Your task to perform on an android device: Search for "logitech g502" on bestbuy, select the first entry, add it to the cart, then select checkout. Image 0: 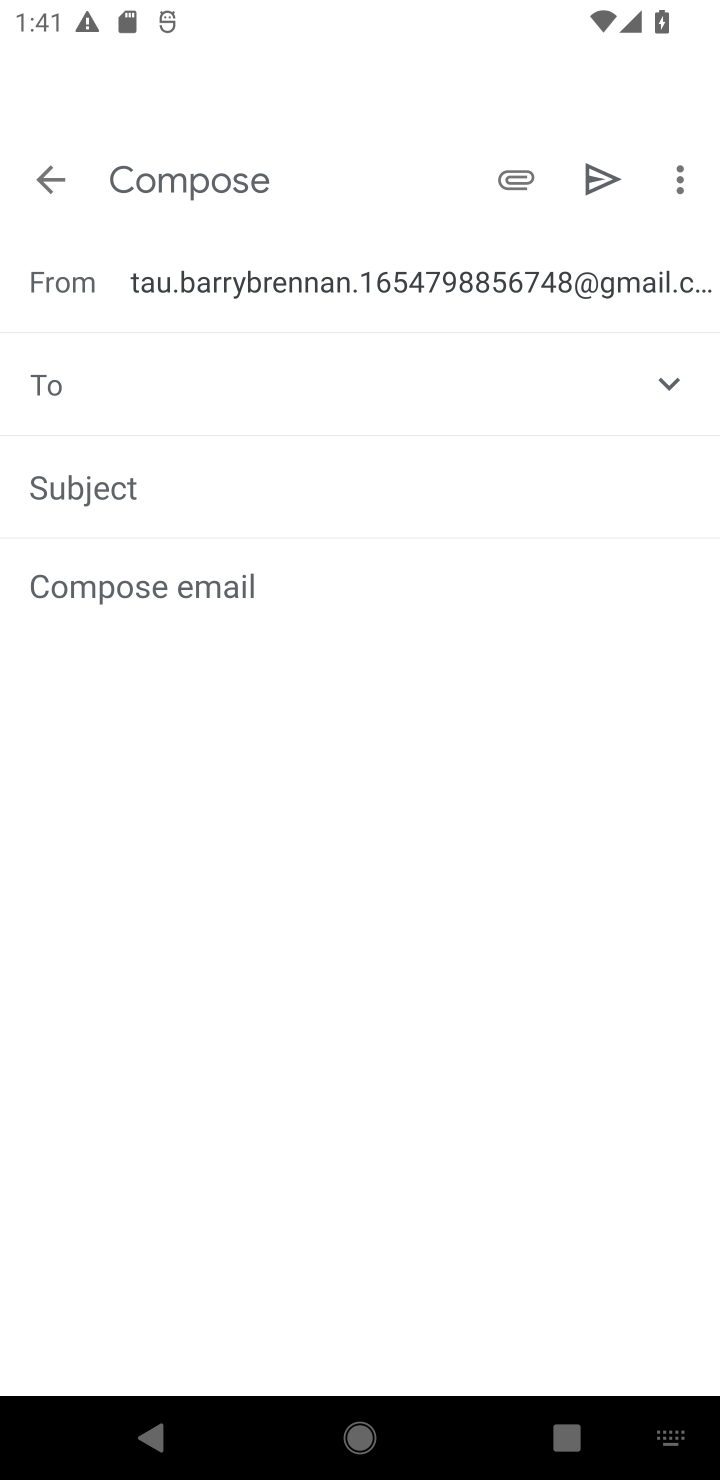
Step 0: press home button
Your task to perform on an android device: Search for "logitech g502" on bestbuy, select the first entry, add it to the cart, then select checkout. Image 1: 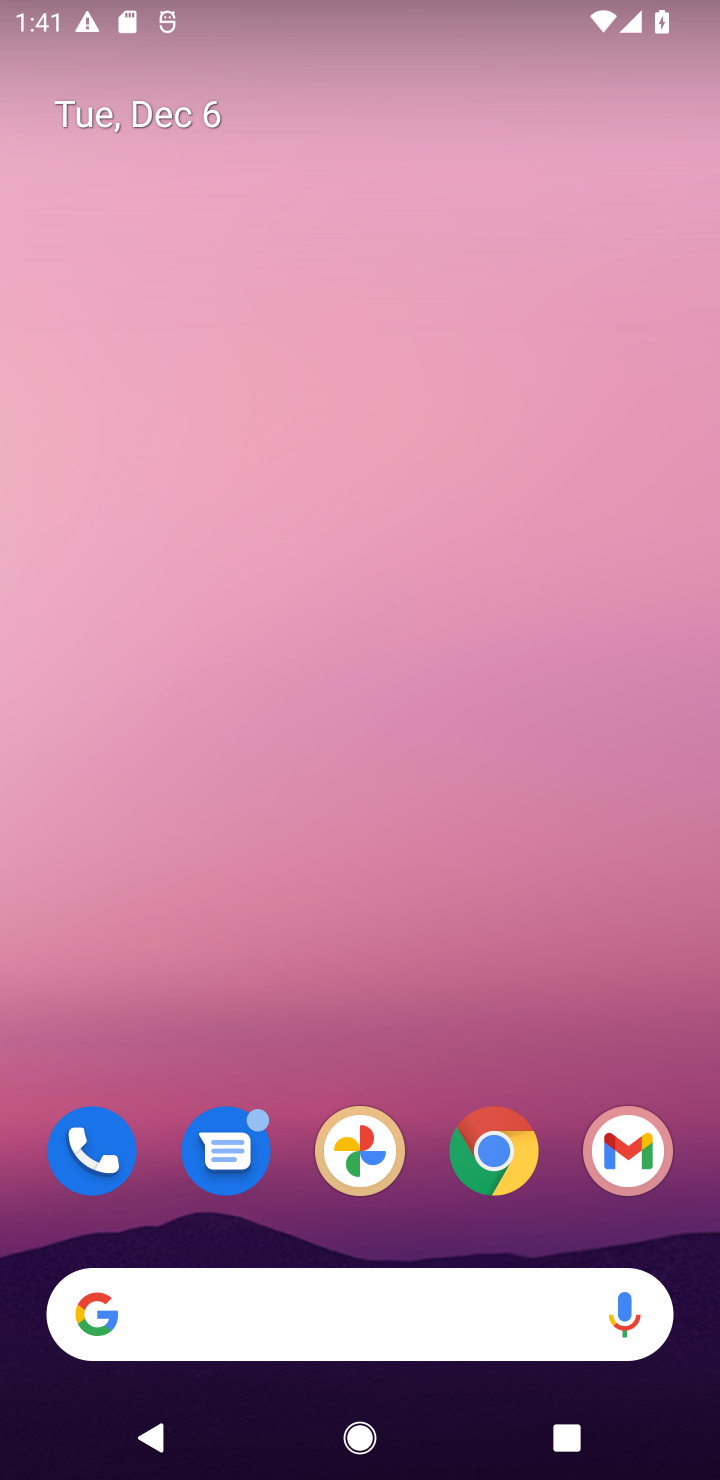
Step 1: click (499, 1146)
Your task to perform on an android device: Search for "logitech g502" on bestbuy, select the first entry, add it to the cart, then select checkout. Image 2: 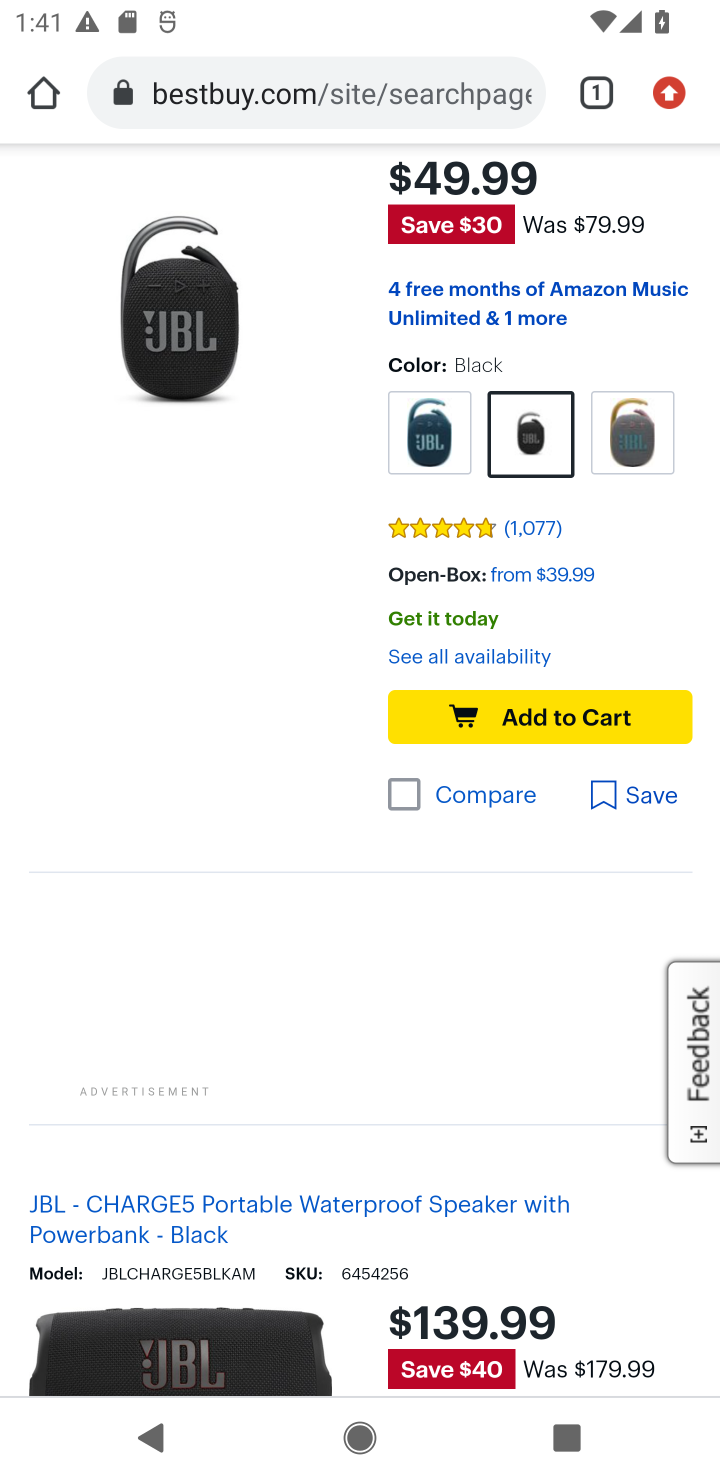
Step 2: drag from (195, 925) to (113, 1124)
Your task to perform on an android device: Search for "logitech g502" on bestbuy, select the first entry, add it to the cart, then select checkout. Image 3: 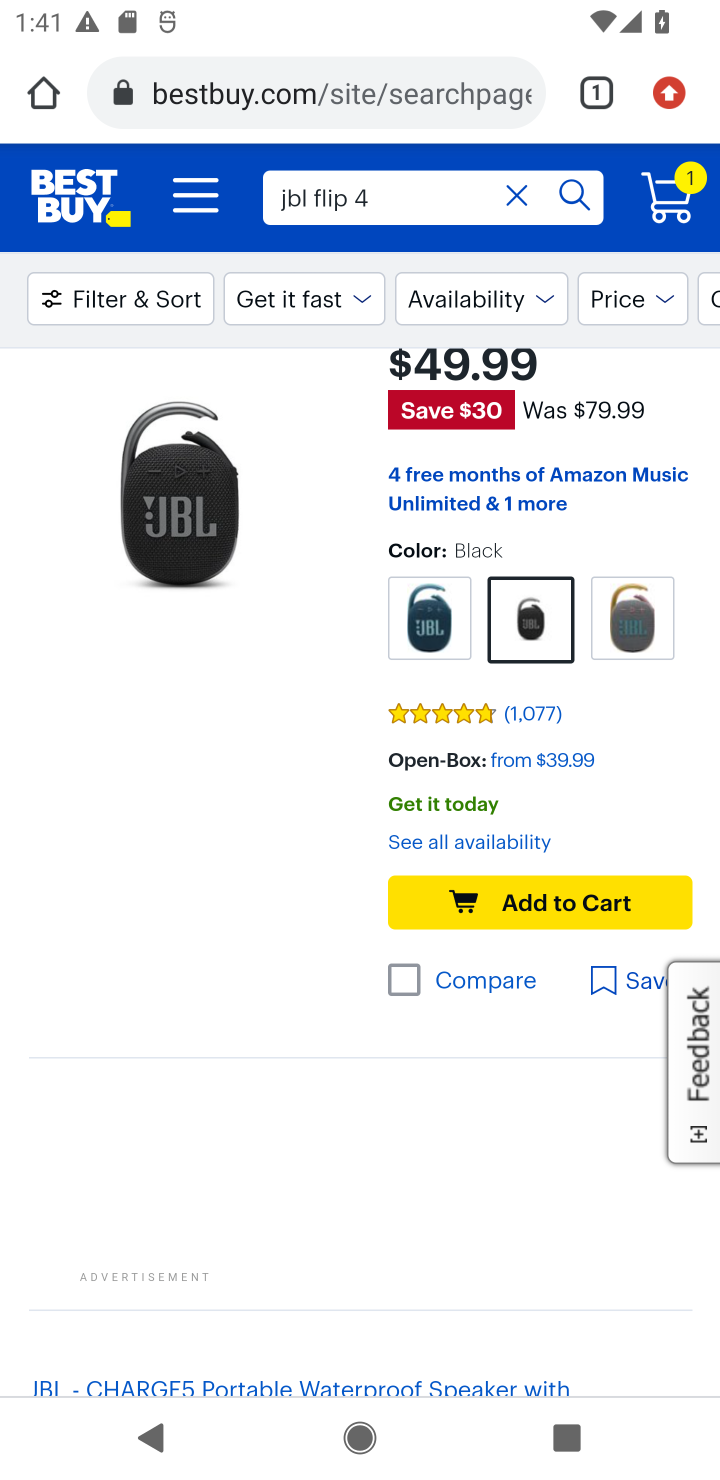
Step 3: click (511, 184)
Your task to perform on an android device: Search for "logitech g502" on bestbuy, select the first entry, add it to the cart, then select checkout. Image 4: 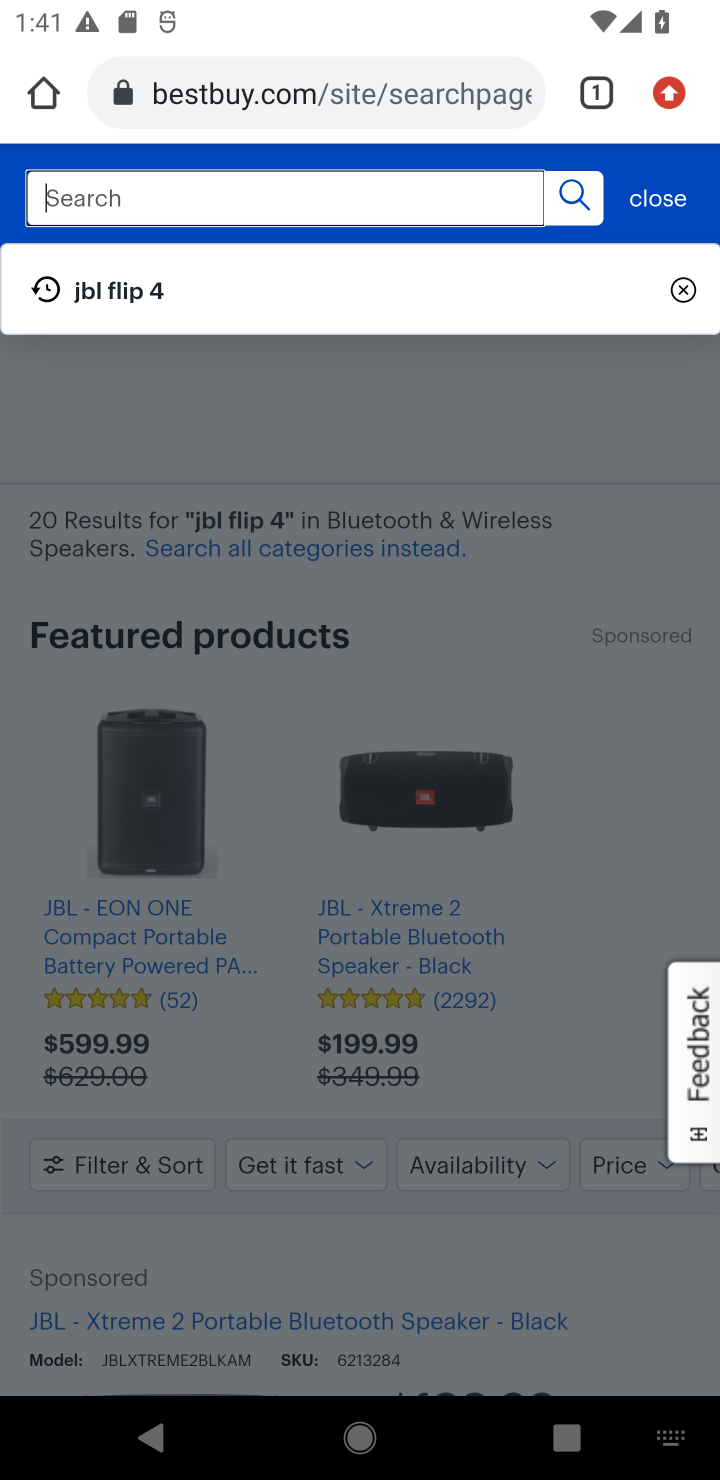
Step 4: type "logitech g502"
Your task to perform on an android device: Search for "logitech g502" on bestbuy, select the first entry, add it to the cart, then select checkout. Image 5: 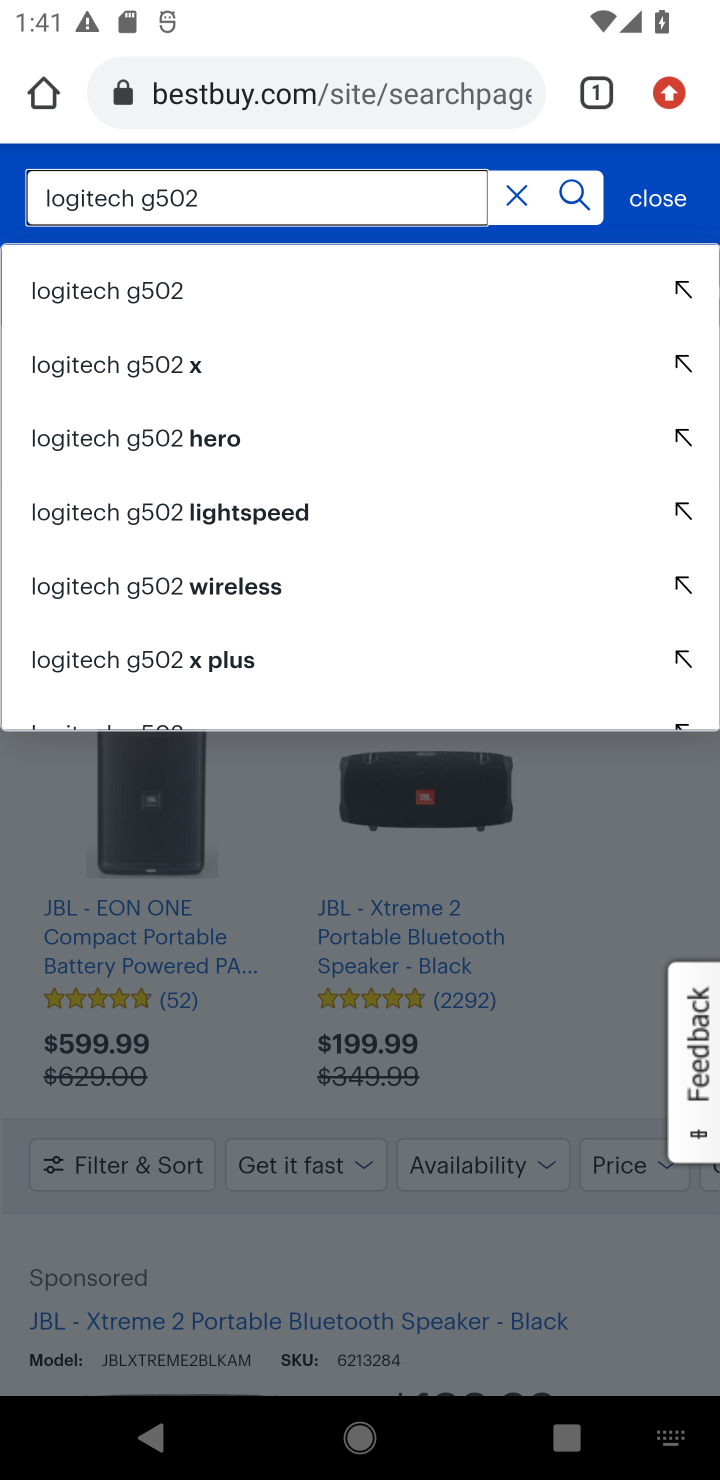
Step 5: click (133, 296)
Your task to perform on an android device: Search for "logitech g502" on bestbuy, select the first entry, add it to the cart, then select checkout. Image 6: 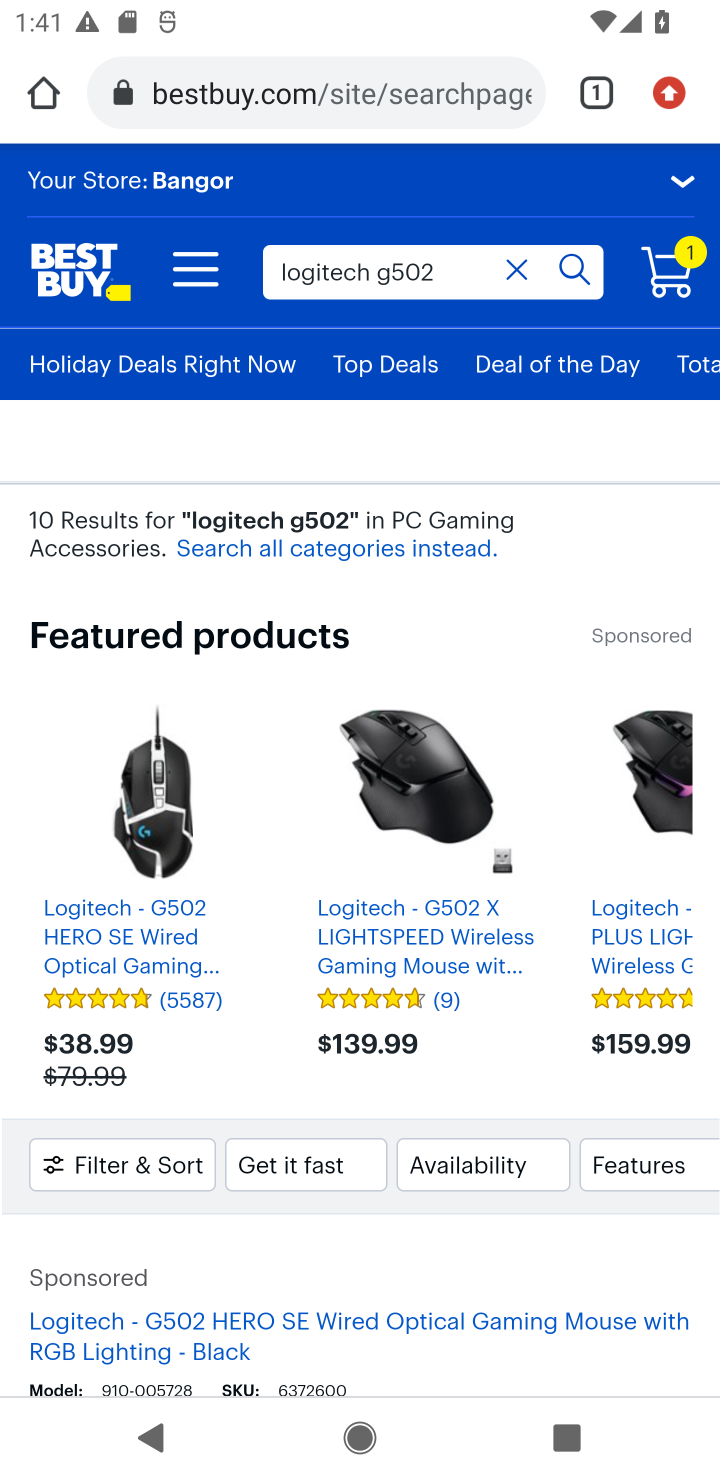
Step 6: drag from (280, 944) to (280, 419)
Your task to perform on an android device: Search for "logitech g502" on bestbuy, select the first entry, add it to the cart, then select checkout. Image 7: 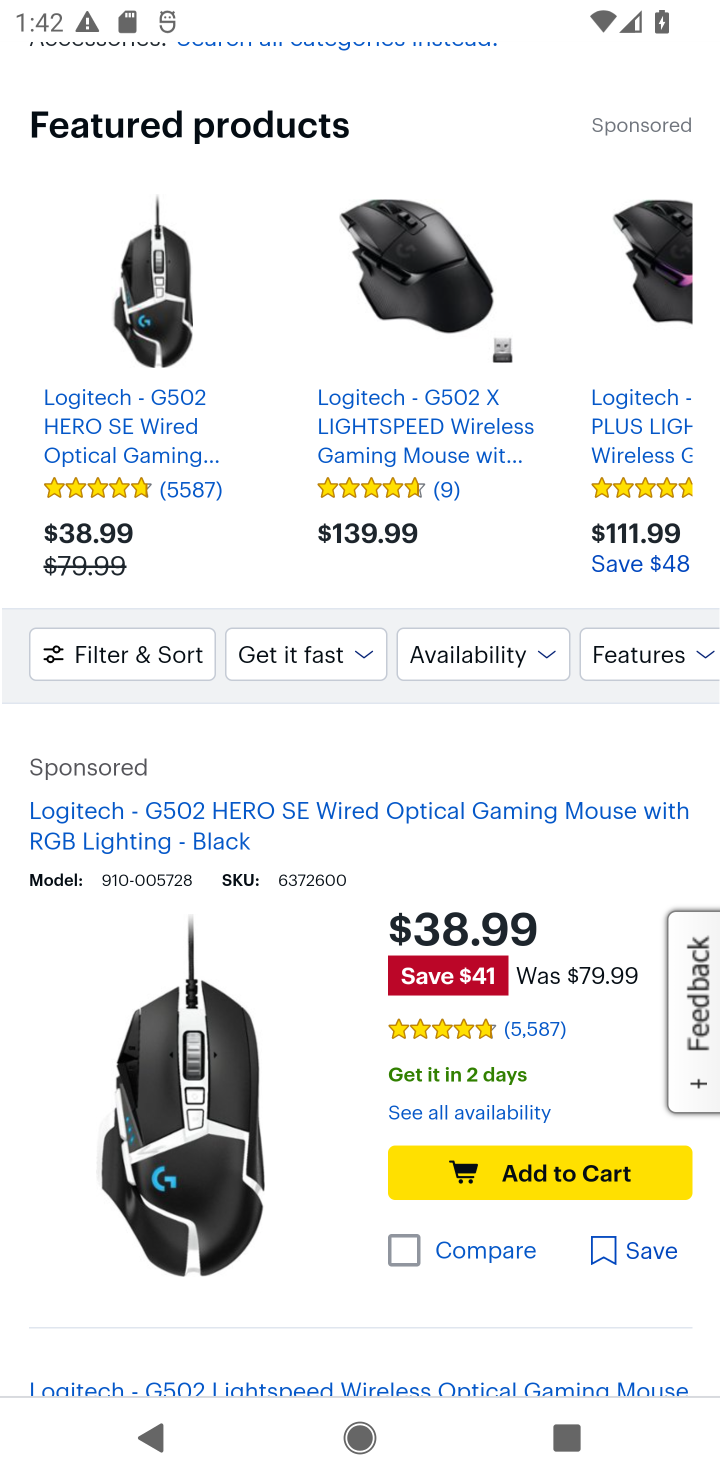
Step 7: click (478, 1179)
Your task to perform on an android device: Search for "logitech g502" on bestbuy, select the first entry, add it to the cart, then select checkout. Image 8: 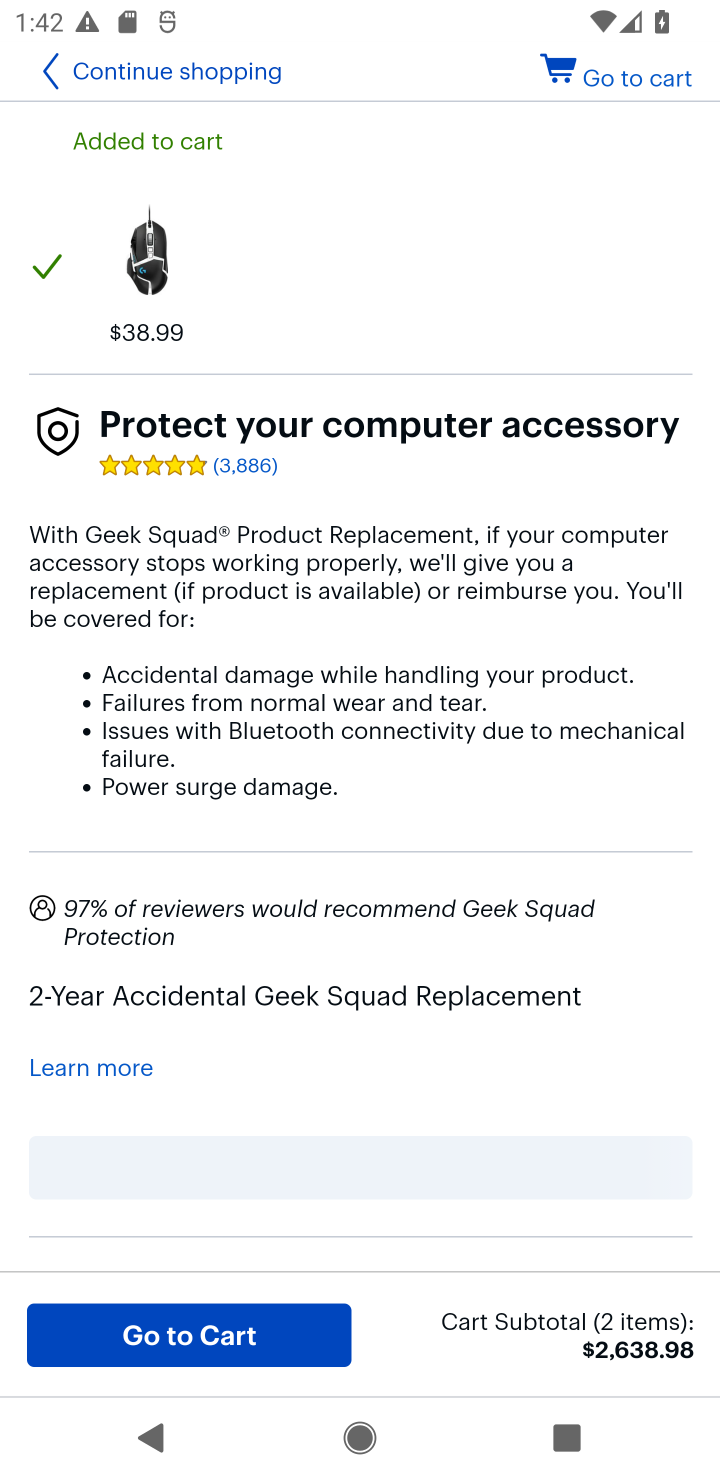
Step 8: click (629, 86)
Your task to perform on an android device: Search for "logitech g502" on bestbuy, select the first entry, add it to the cart, then select checkout. Image 9: 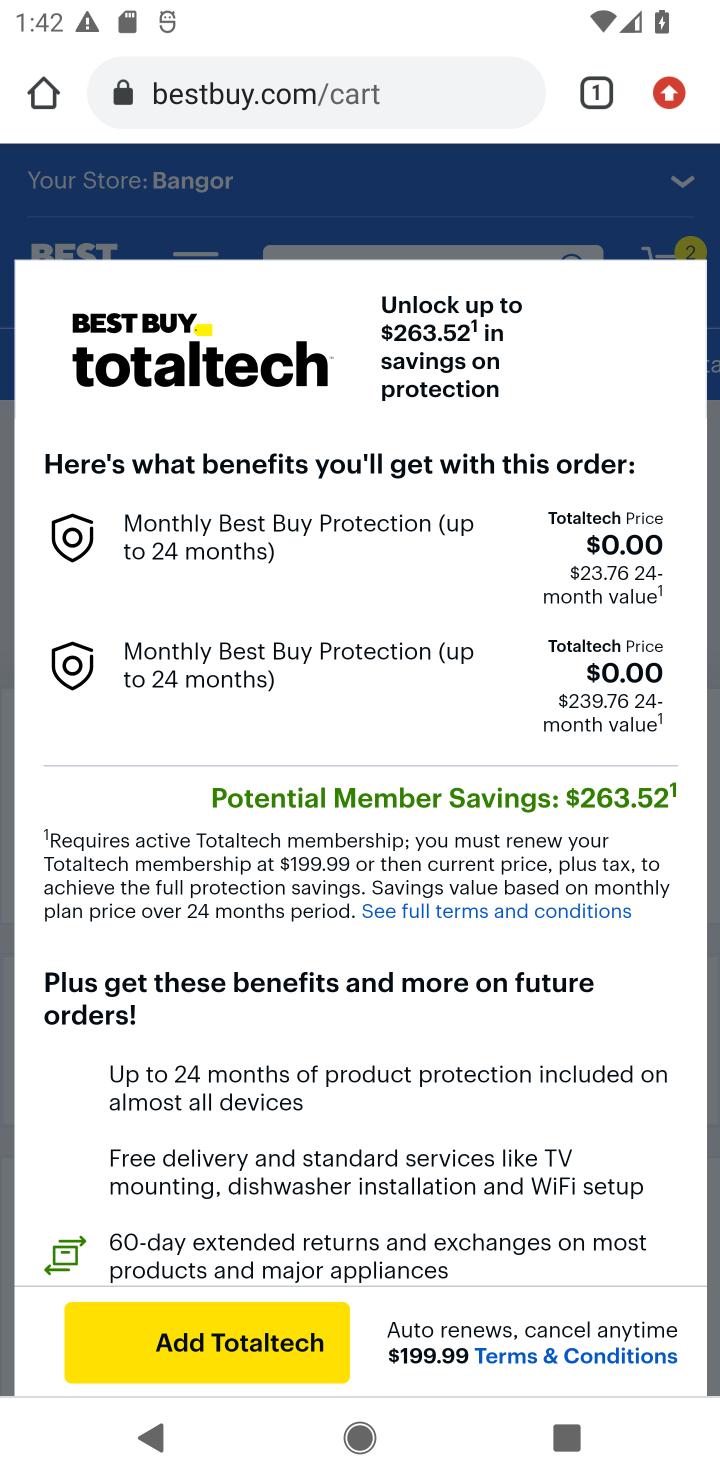
Step 9: click (366, 847)
Your task to perform on an android device: Search for "logitech g502" on bestbuy, select the first entry, add it to the cart, then select checkout. Image 10: 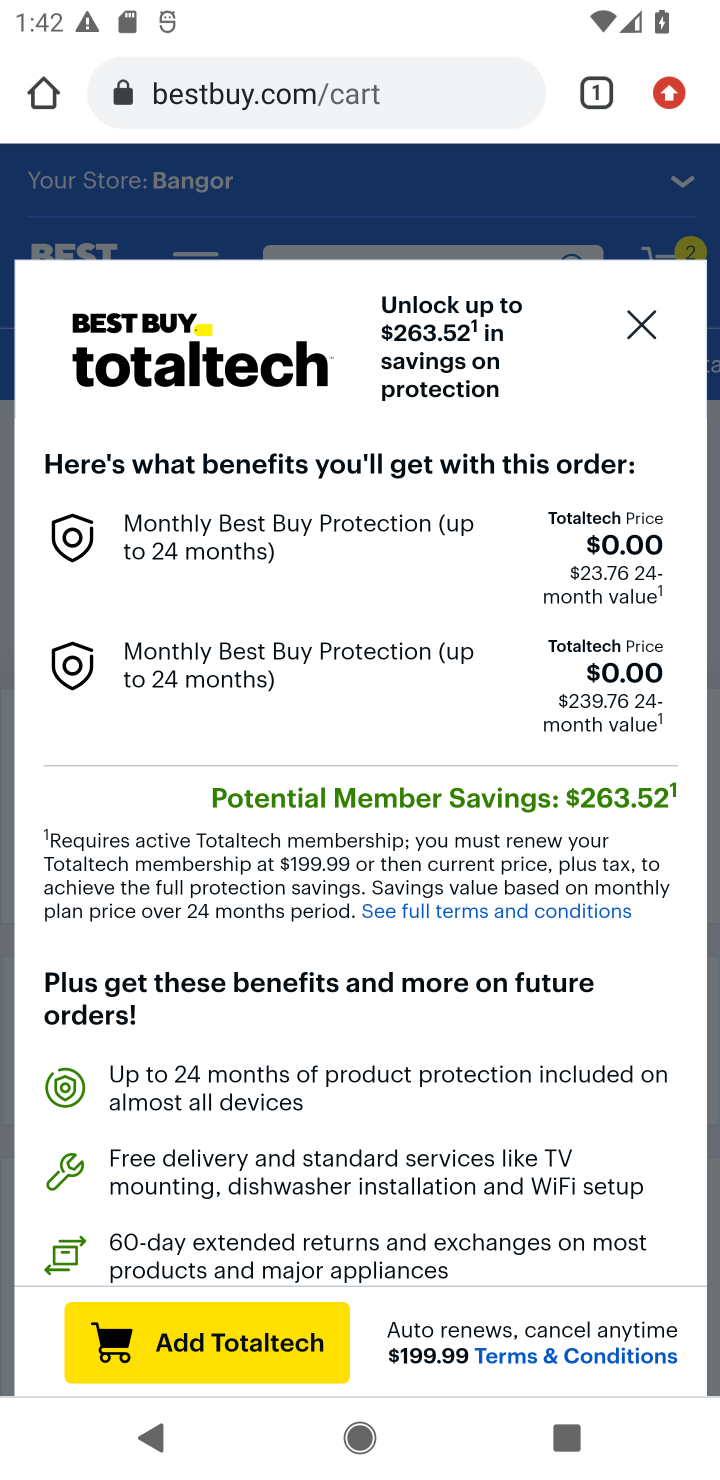
Step 10: click (642, 338)
Your task to perform on an android device: Search for "logitech g502" on bestbuy, select the first entry, add it to the cart, then select checkout. Image 11: 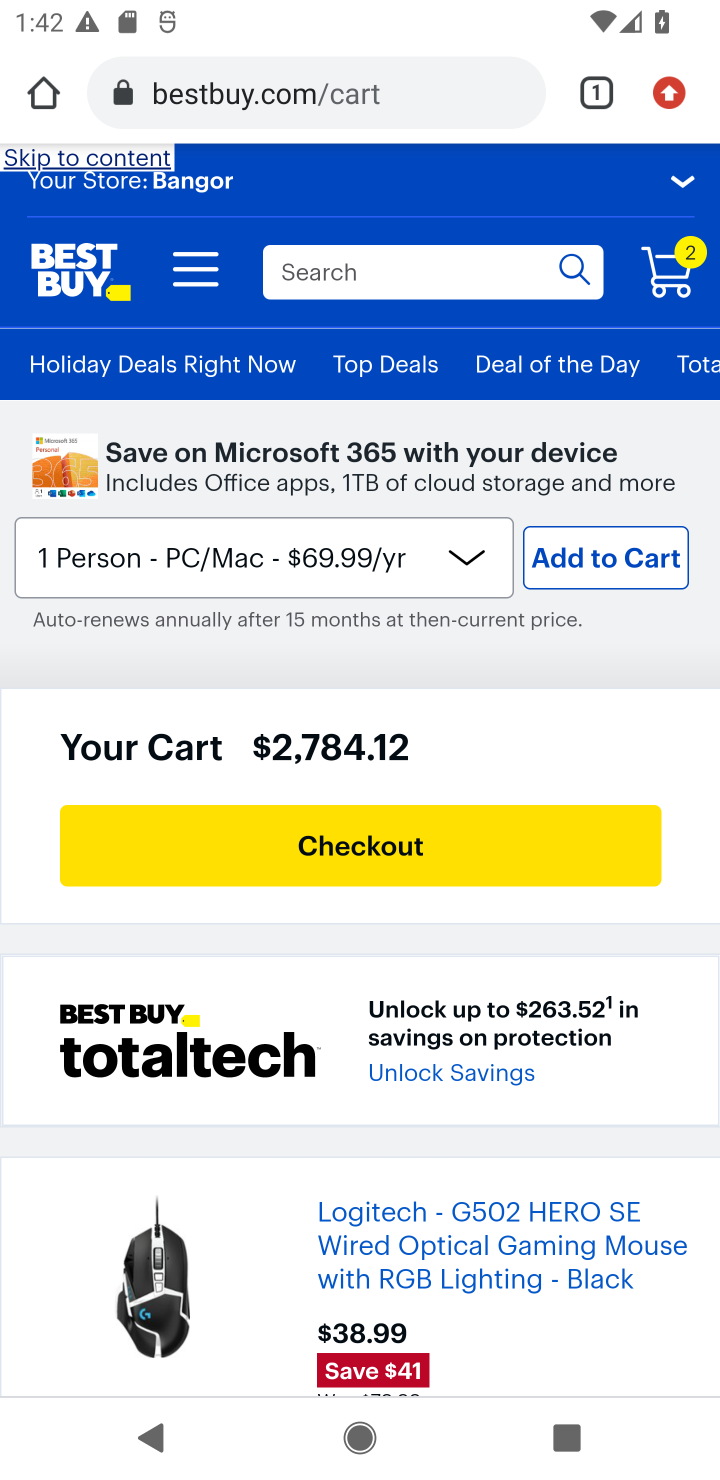
Step 11: click (355, 836)
Your task to perform on an android device: Search for "logitech g502" on bestbuy, select the first entry, add it to the cart, then select checkout. Image 12: 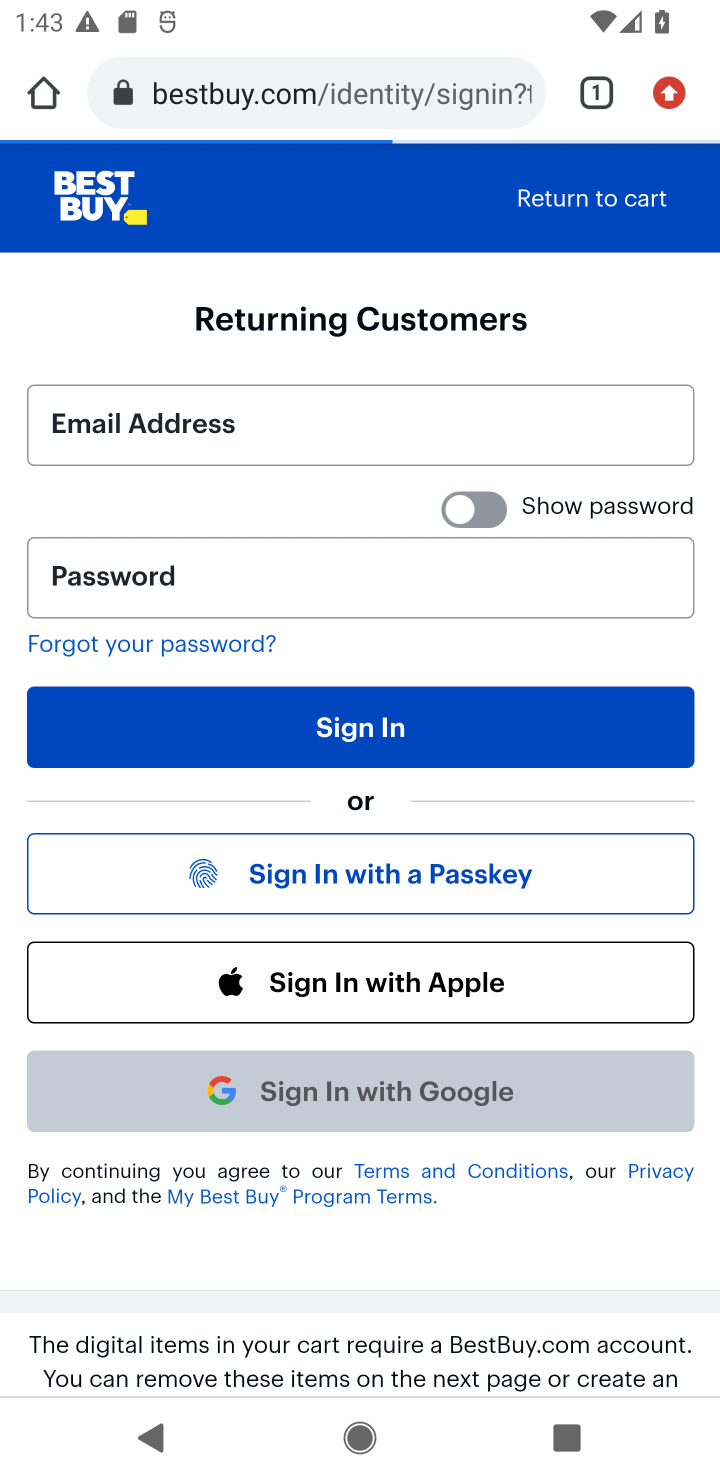
Step 12: task complete